Your task to perform on an android device: Open display settings Image 0: 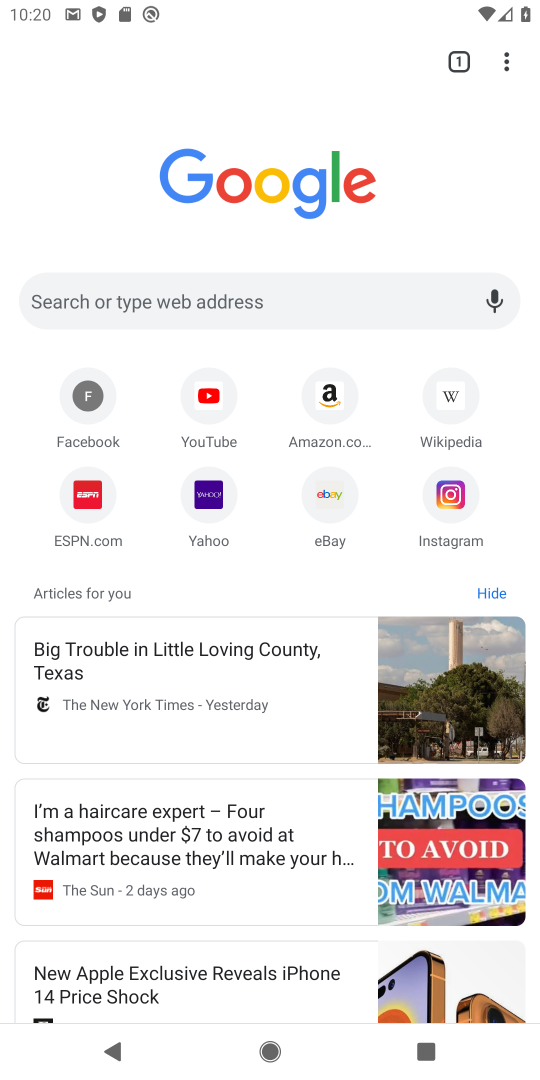
Step 0: press home button
Your task to perform on an android device: Open display settings Image 1: 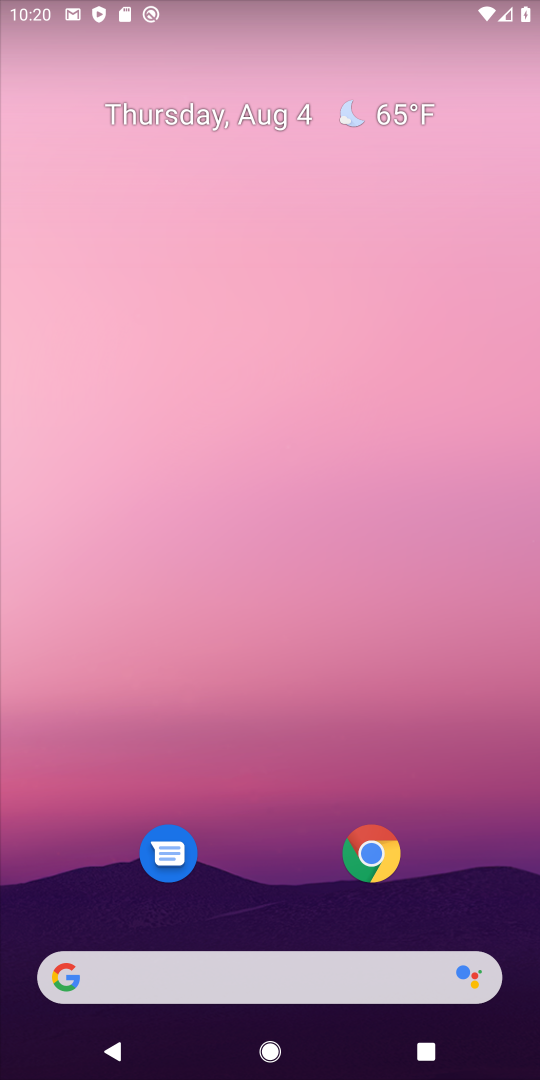
Step 1: drag from (296, 904) to (188, 177)
Your task to perform on an android device: Open display settings Image 2: 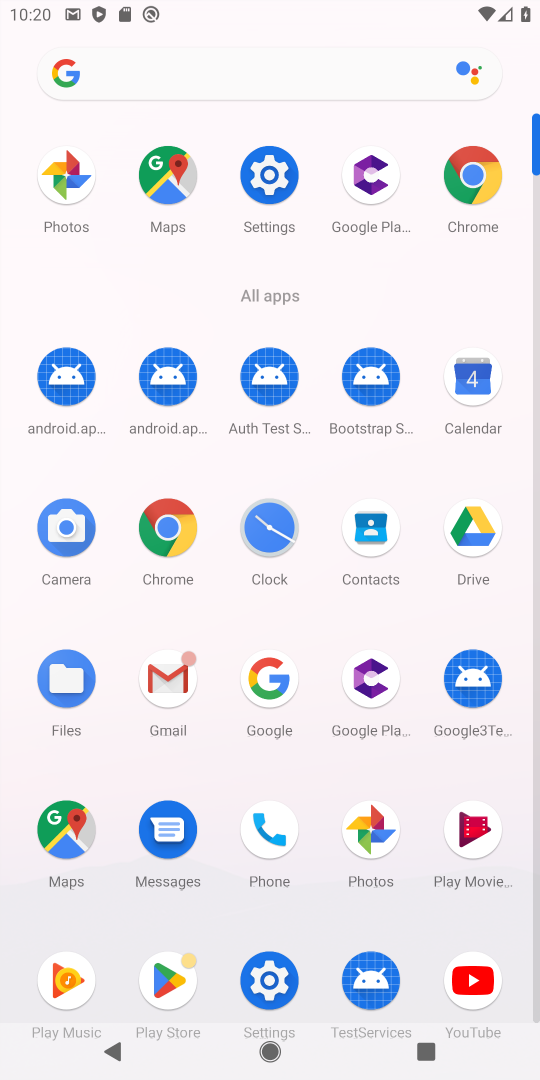
Step 2: click (247, 189)
Your task to perform on an android device: Open display settings Image 3: 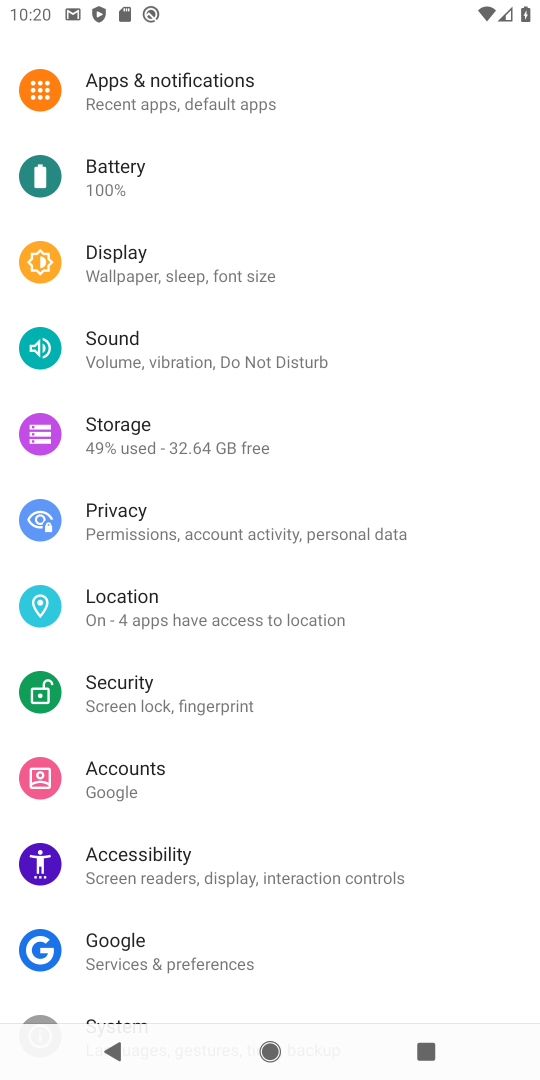
Step 3: click (121, 279)
Your task to perform on an android device: Open display settings Image 4: 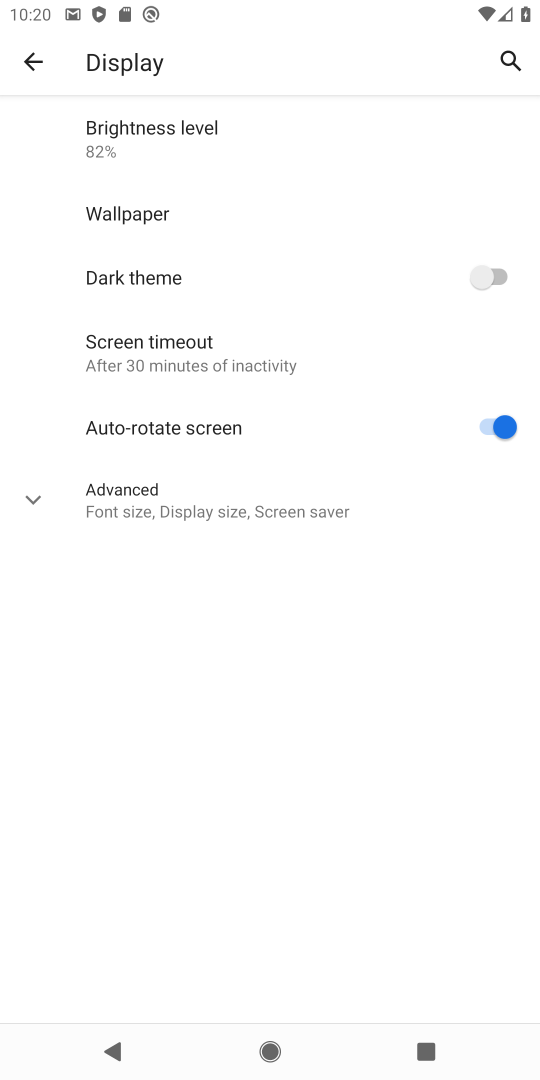
Step 4: click (134, 533)
Your task to perform on an android device: Open display settings Image 5: 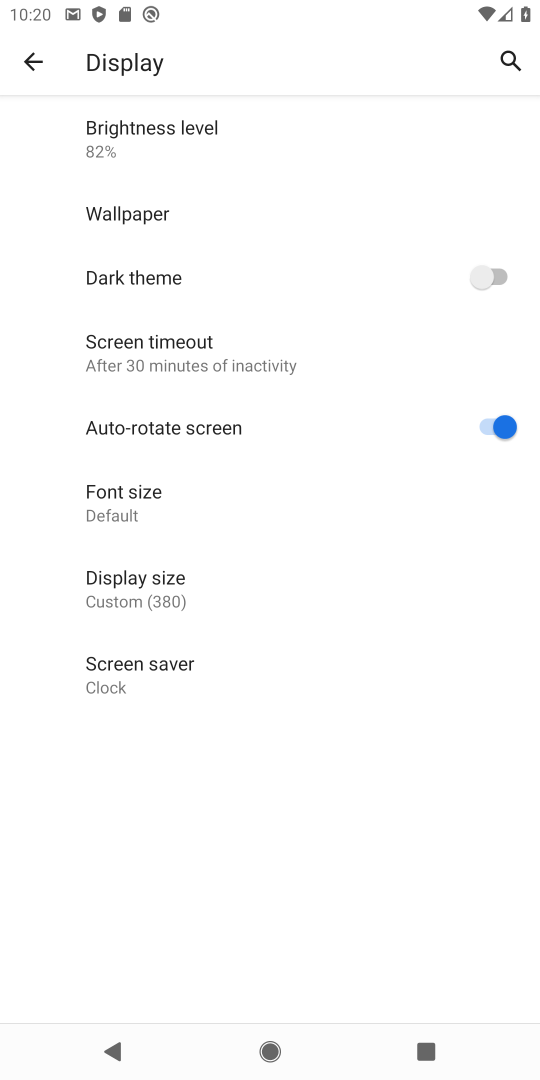
Step 5: task complete